Your task to perform on an android device: Check the news Image 0: 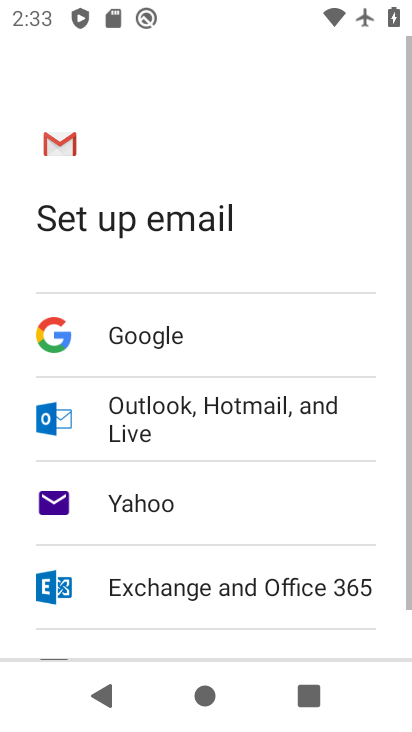
Step 0: press home button
Your task to perform on an android device: Check the news Image 1: 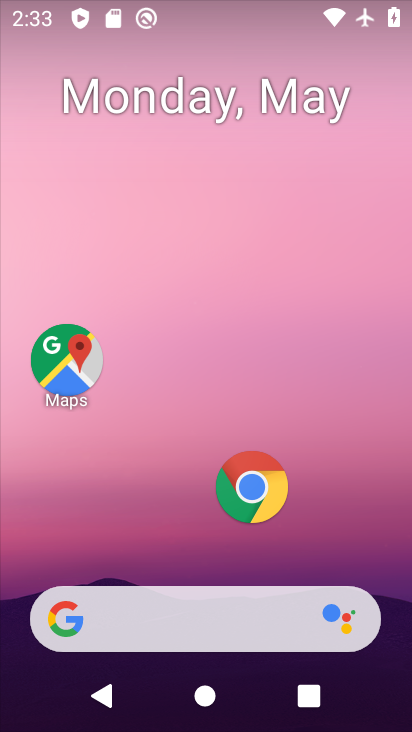
Step 1: drag from (166, 541) to (243, 0)
Your task to perform on an android device: Check the news Image 2: 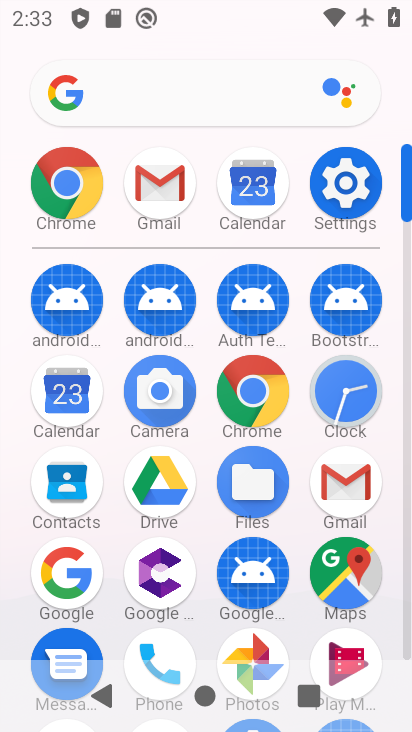
Step 2: click (193, 98)
Your task to perform on an android device: Check the news Image 3: 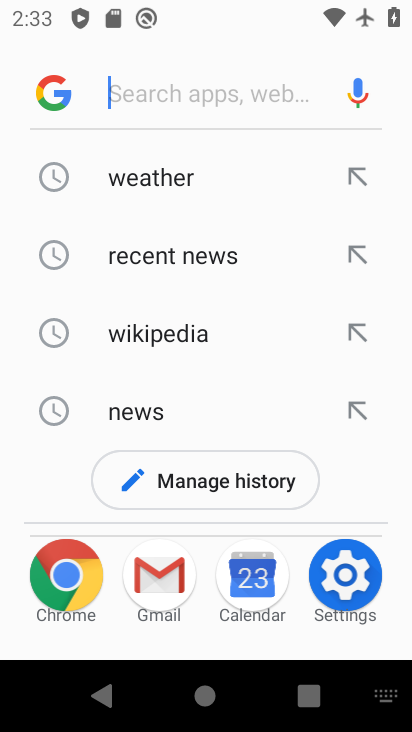
Step 3: type "news"
Your task to perform on an android device: Check the news Image 4: 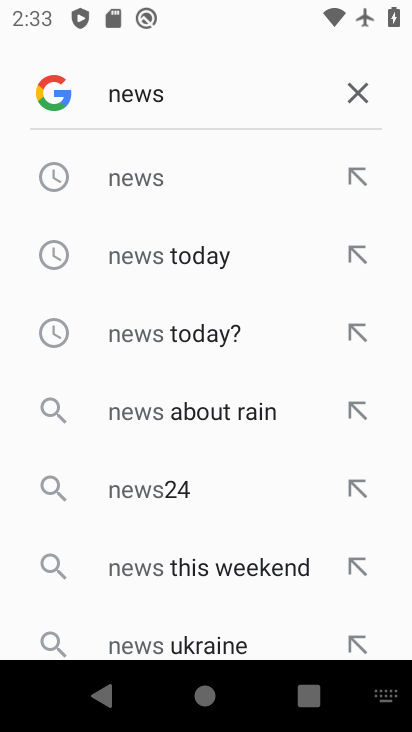
Step 4: click (116, 187)
Your task to perform on an android device: Check the news Image 5: 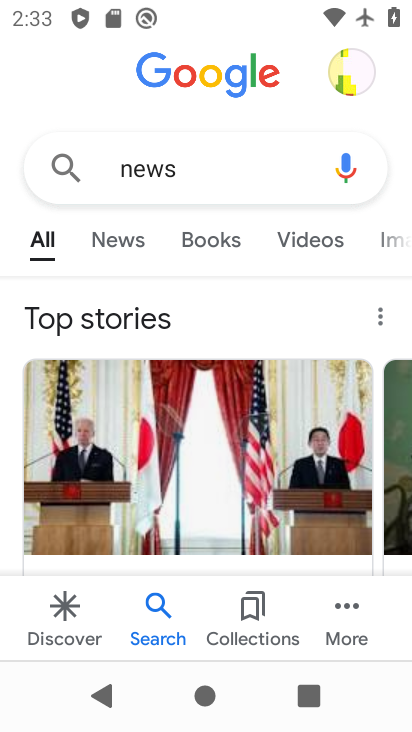
Step 5: click (140, 238)
Your task to perform on an android device: Check the news Image 6: 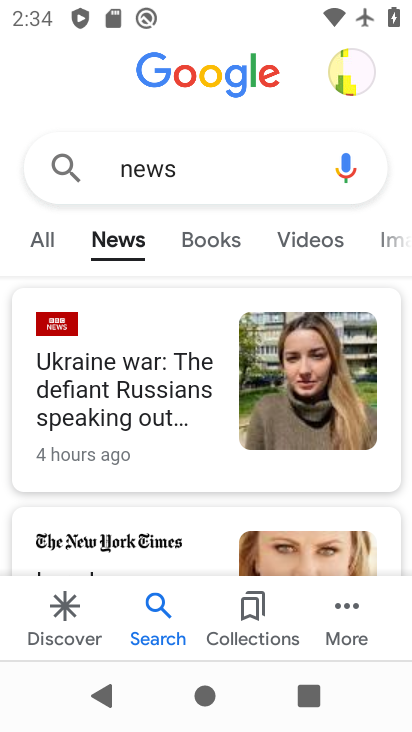
Step 6: task complete